Your task to perform on an android device: Find coffee shops on Maps Image 0: 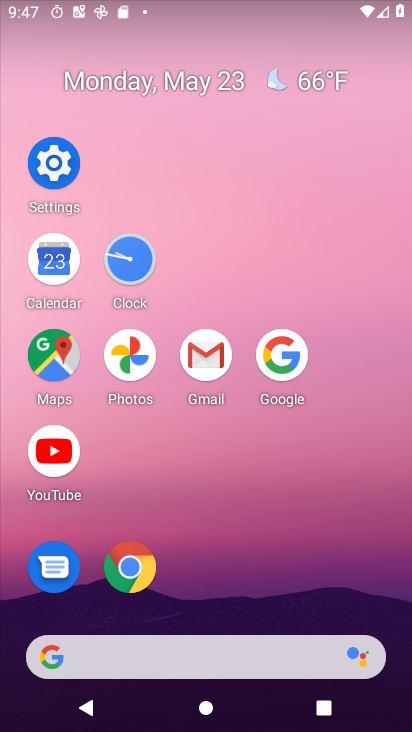
Step 0: click (32, 350)
Your task to perform on an android device: Find coffee shops on Maps Image 1: 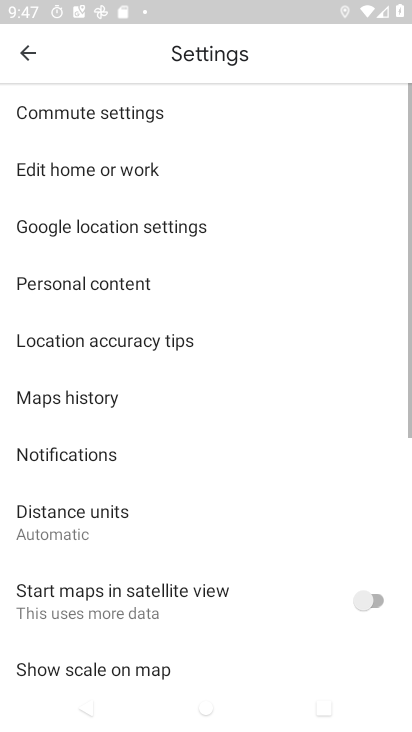
Step 1: click (33, 51)
Your task to perform on an android device: Find coffee shops on Maps Image 2: 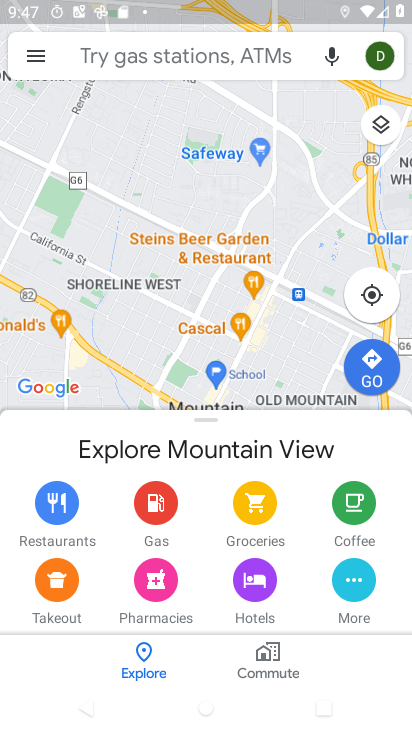
Step 2: click (30, 66)
Your task to perform on an android device: Find coffee shops on Maps Image 3: 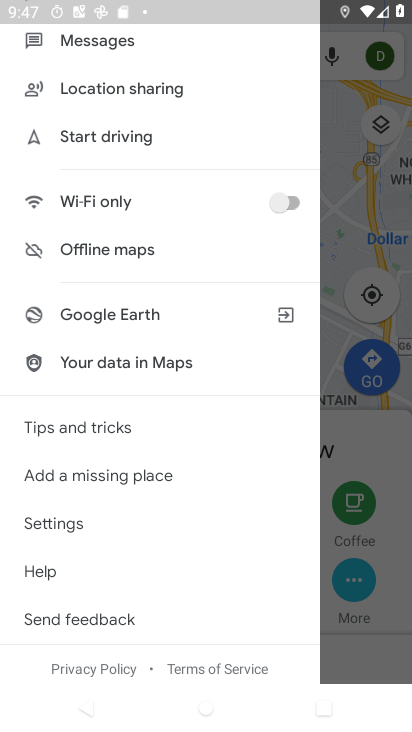
Step 3: click (356, 70)
Your task to perform on an android device: Find coffee shops on Maps Image 4: 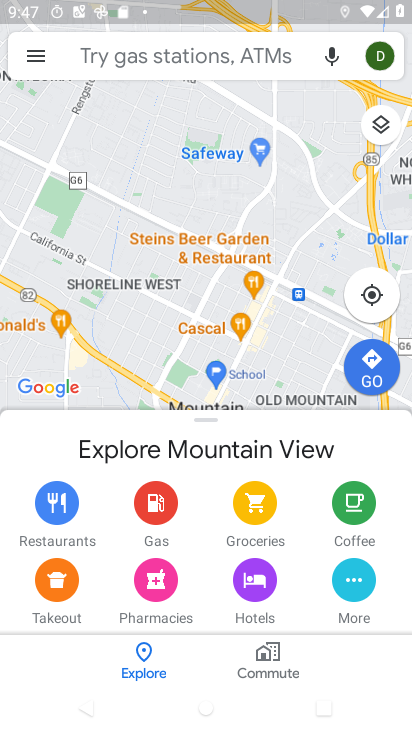
Step 4: click (227, 67)
Your task to perform on an android device: Find coffee shops on Maps Image 5: 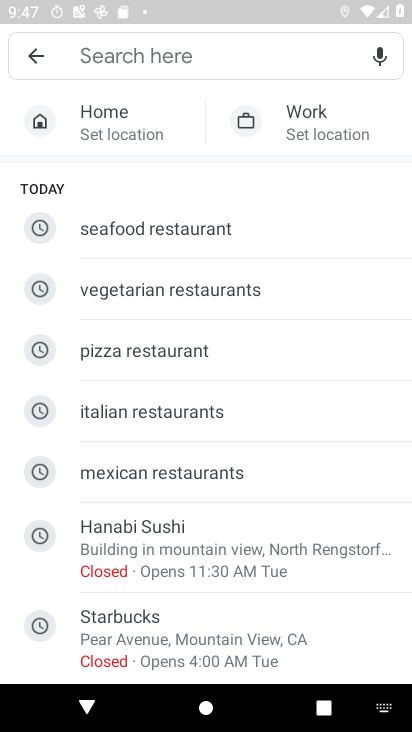
Step 5: drag from (232, 472) to (222, 427)
Your task to perform on an android device: Find coffee shops on Maps Image 6: 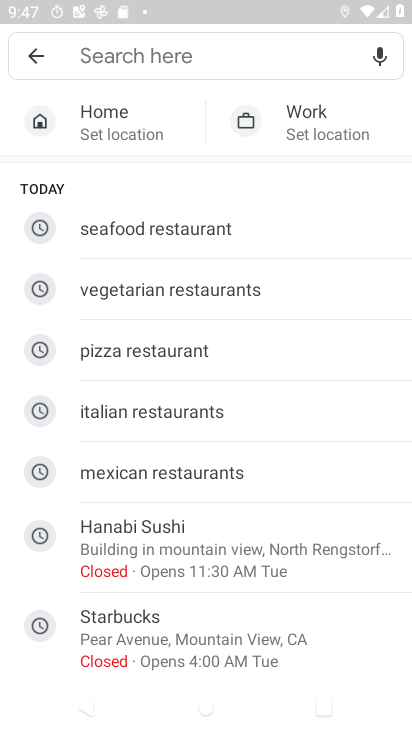
Step 6: click (157, 64)
Your task to perform on an android device: Find coffee shops on Maps Image 7: 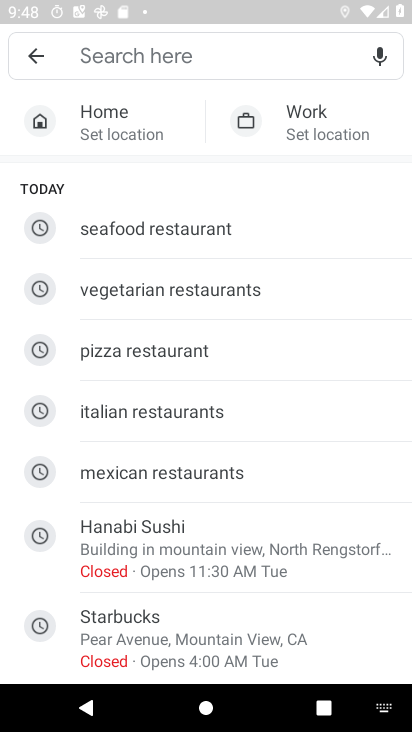
Step 7: type "coffee shops"
Your task to perform on an android device: Find coffee shops on Maps Image 8: 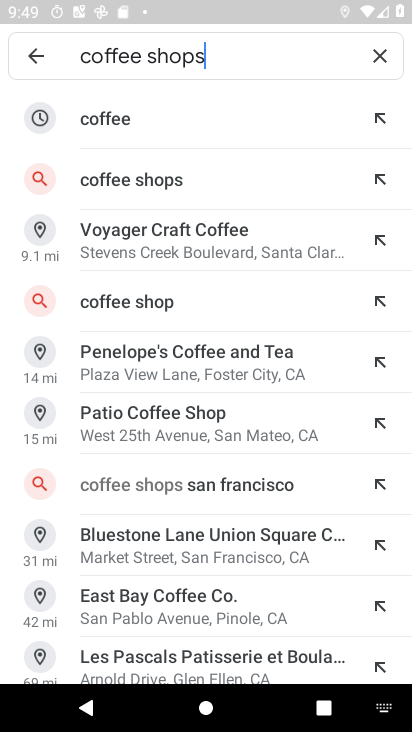
Step 8: task complete